Your task to perform on an android device: Do I have any events this weekend? Image 0: 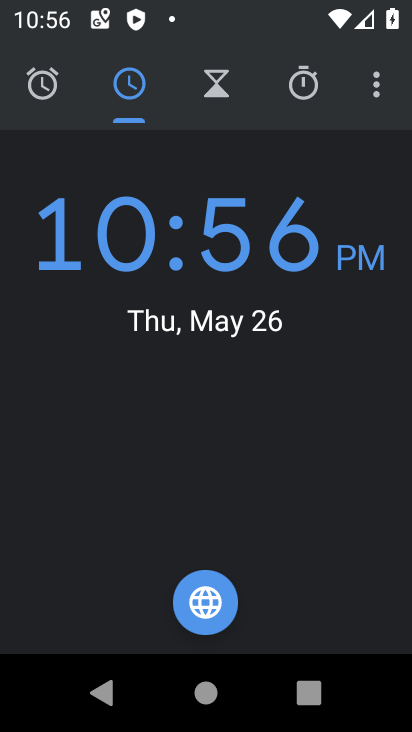
Step 0: press home button
Your task to perform on an android device: Do I have any events this weekend? Image 1: 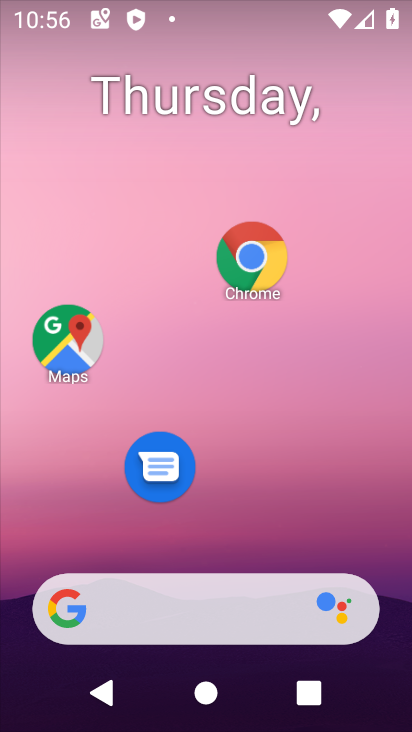
Step 1: drag from (224, 486) to (304, 154)
Your task to perform on an android device: Do I have any events this weekend? Image 2: 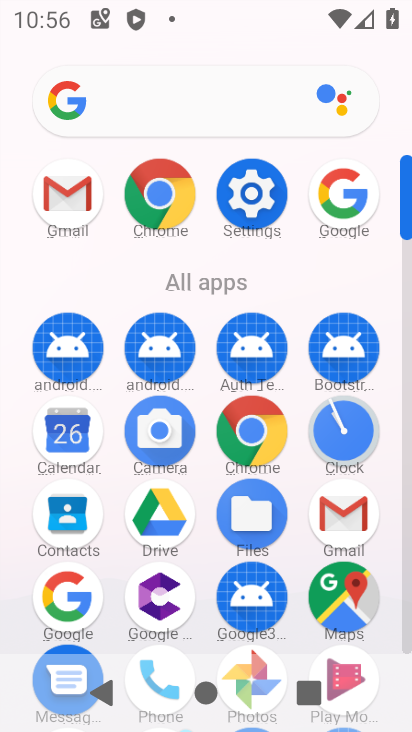
Step 2: click (80, 440)
Your task to perform on an android device: Do I have any events this weekend? Image 3: 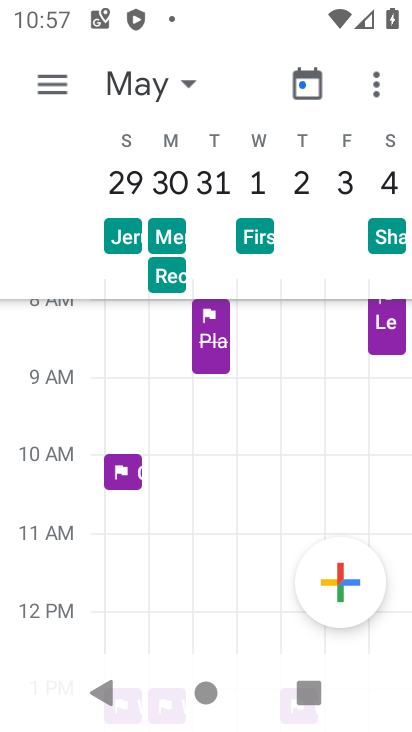
Step 3: click (167, 75)
Your task to perform on an android device: Do I have any events this weekend? Image 4: 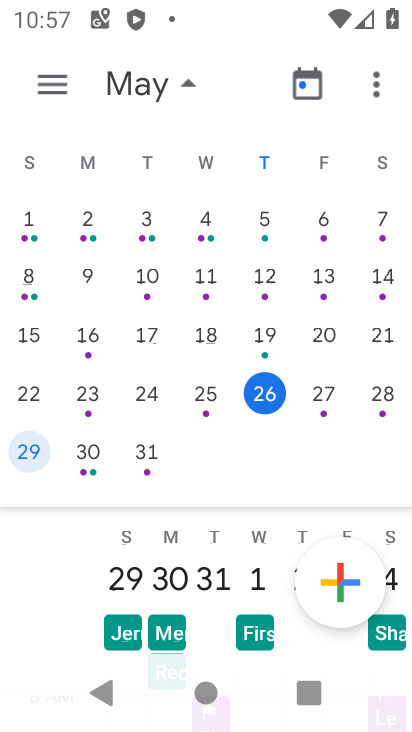
Step 4: click (383, 386)
Your task to perform on an android device: Do I have any events this weekend? Image 5: 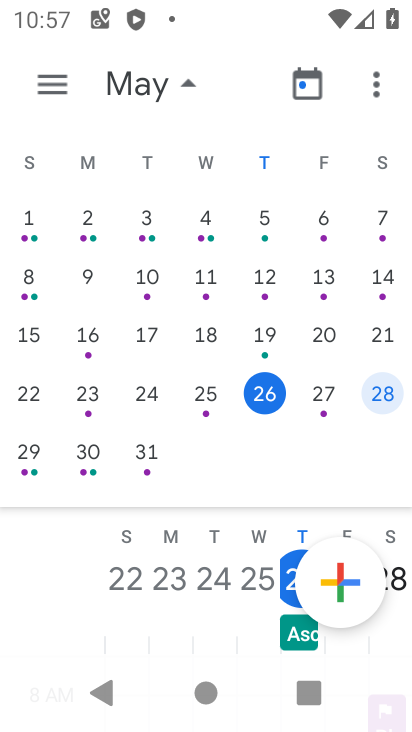
Step 5: click (24, 460)
Your task to perform on an android device: Do I have any events this weekend? Image 6: 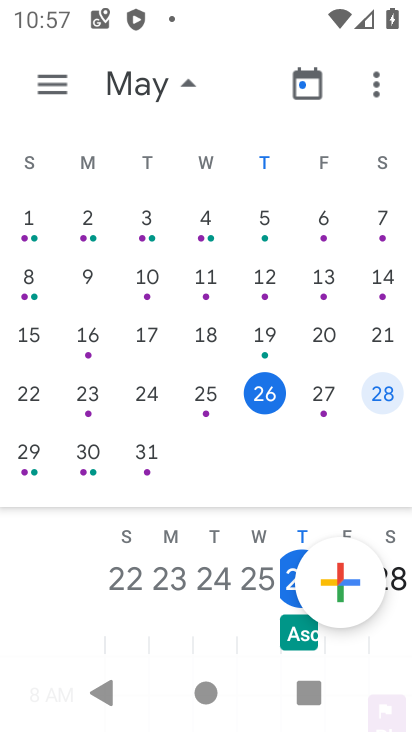
Step 6: task complete